Your task to perform on an android device: What's on my calendar tomorrow? Image 0: 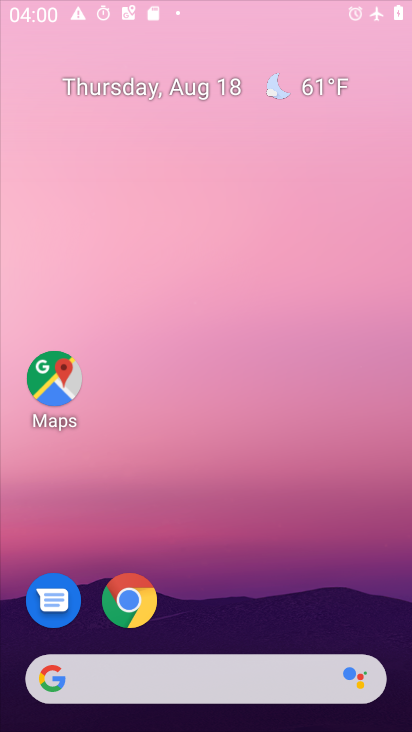
Step 0: press home button
Your task to perform on an android device: What's on my calendar tomorrow? Image 1: 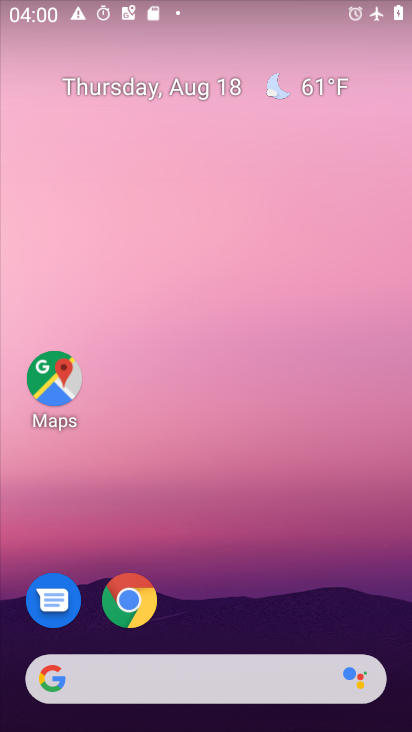
Step 1: drag from (237, 618) to (252, 76)
Your task to perform on an android device: What's on my calendar tomorrow? Image 2: 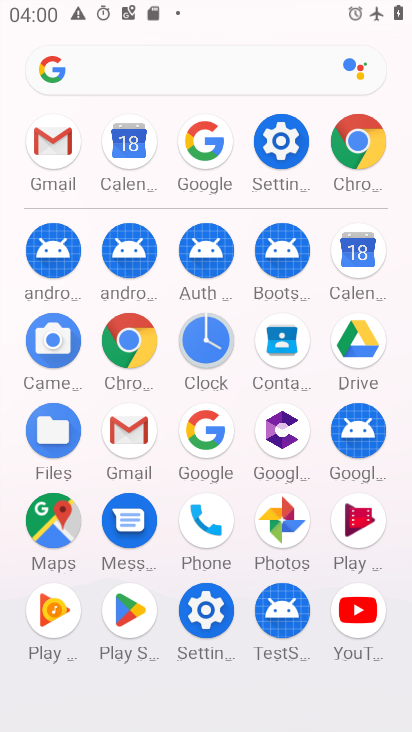
Step 2: click (136, 138)
Your task to perform on an android device: What's on my calendar tomorrow? Image 3: 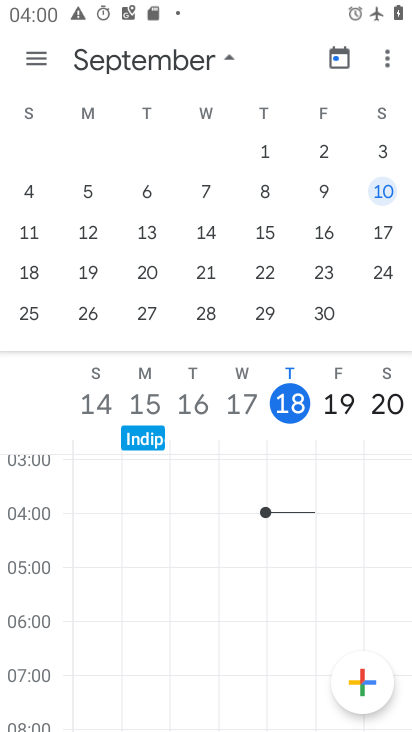
Step 3: drag from (64, 222) to (364, 217)
Your task to perform on an android device: What's on my calendar tomorrow? Image 4: 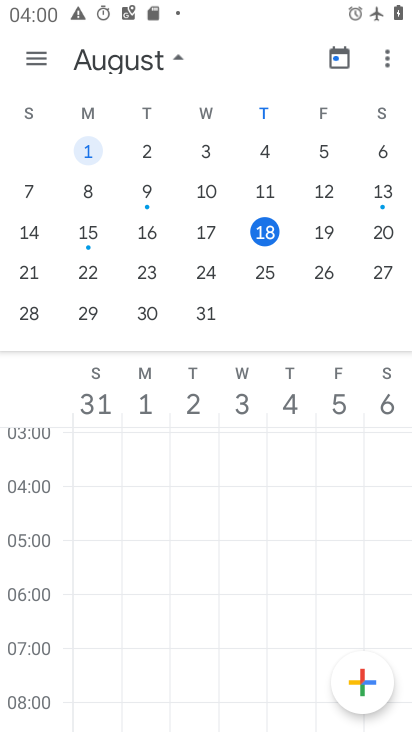
Step 4: click (326, 230)
Your task to perform on an android device: What's on my calendar tomorrow? Image 5: 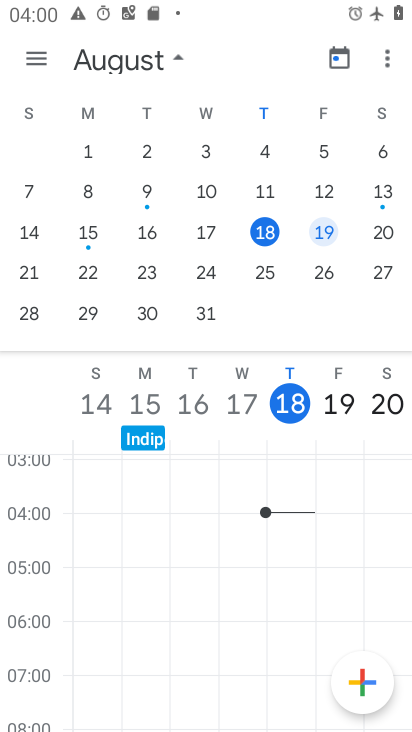
Step 5: click (323, 227)
Your task to perform on an android device: What's on my calendar tomorrow? Image 6: 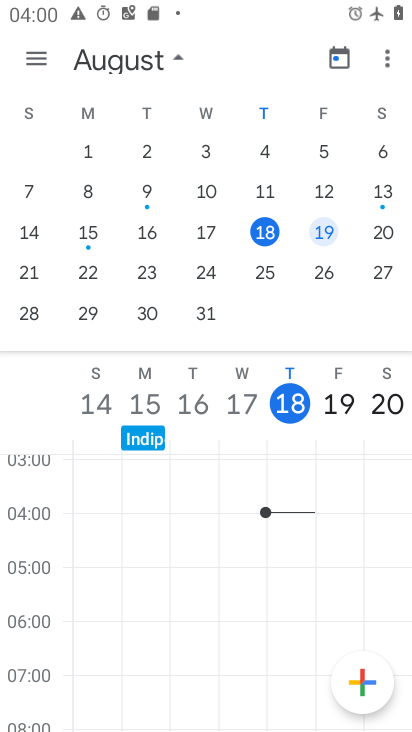
Step 6: click (323, 227)
Your task to perform on an android device: What's on my calendar tomorrow? Image 7: 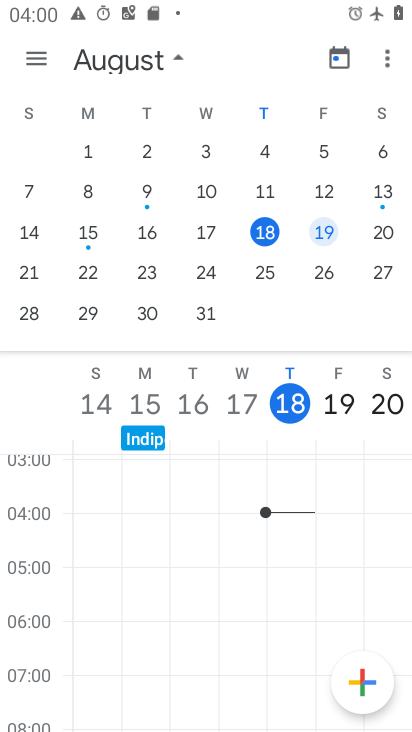
Step 7: click (320, 239)
Your task to perform on an android device: What's on my calendar tomorrow? Image 8: 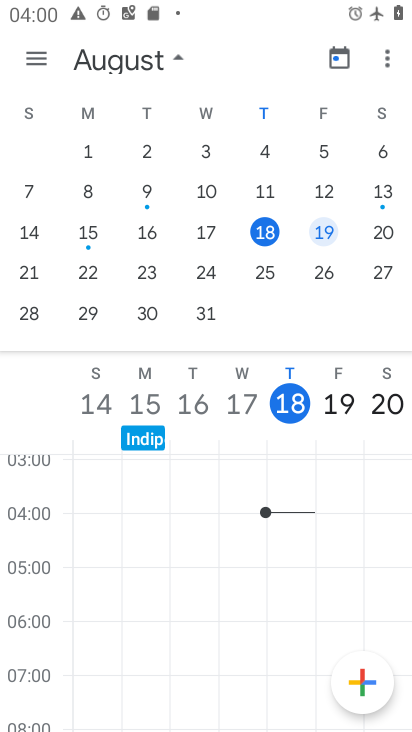
Step 8: task complete